Your task to perform on an android device: turn on sleep mode Image 0: 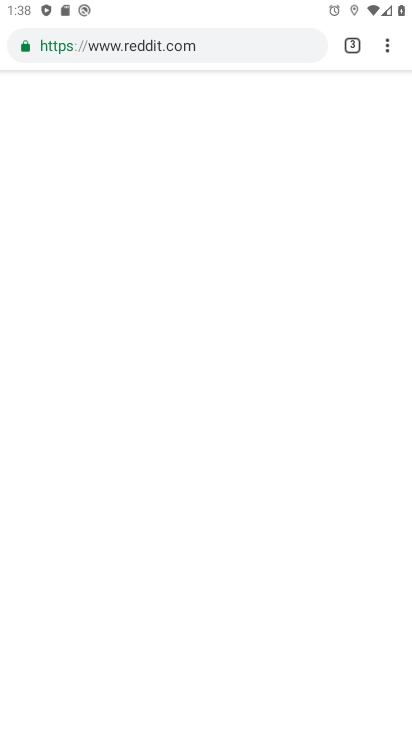
Step 0: press home button
Your task to perform on an android device: turn on sleep mode Image 1: 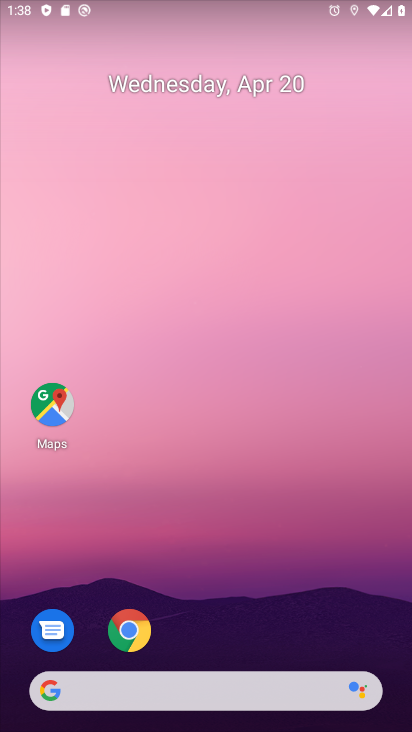
Step 1: drag from (193, 614) to (86, 90)
Your task to perform on an android device: turn on sleep mode Image 2: 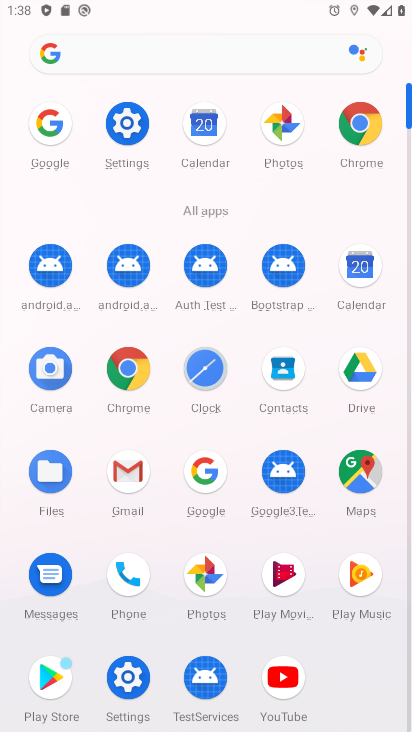
Step 2: click (127, 674)
Your task to perform on an android device: turn on sleep mode Image 3: 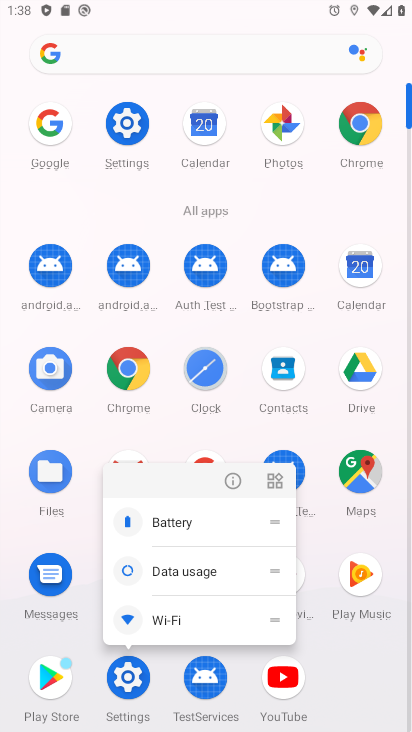
Step 3: click (129, 658)
Your task to perform on an android device: turn on sleep mode Image 4: 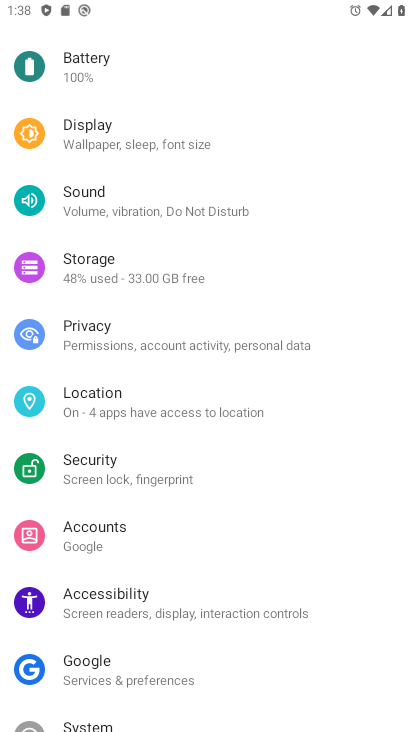
Step 4: click (94, 127)
Your task to perform on an android device: turn on sleep mode Image 5: 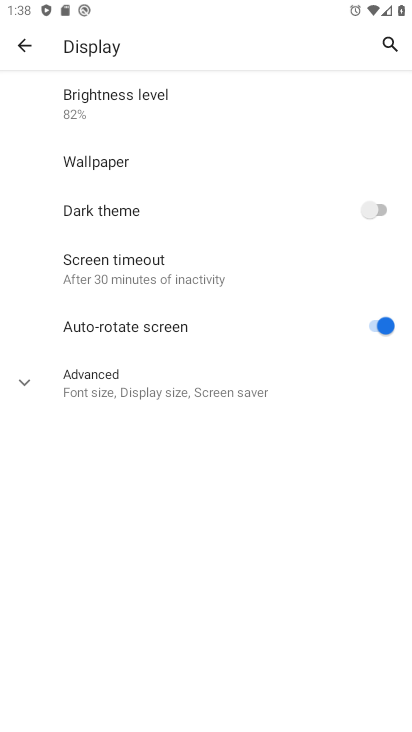
Step 5: click (61, 379)
Your task to perform on an android device: turn on sleep mode Image 6: 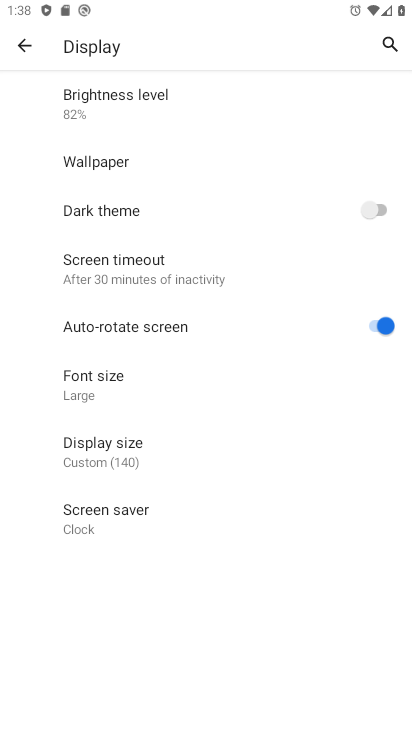
Step 6: task complete